Your task to perform on an android device: Search for Mexican restaurants on Maps Image 0: 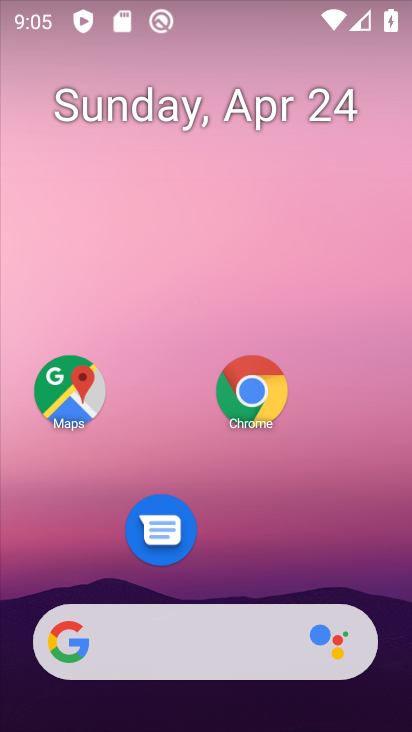
Step 0: click (82, 374)
Your task to perform on an android device: Search for Mexican restaurants on Maps Image 1: 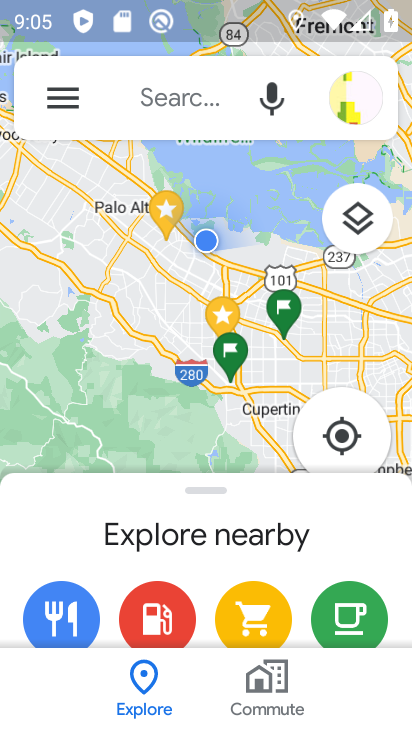
Step 1: click (206, 101)
Your task to perform on an android device: Search for Mexican restaurants on Maps Image 2: 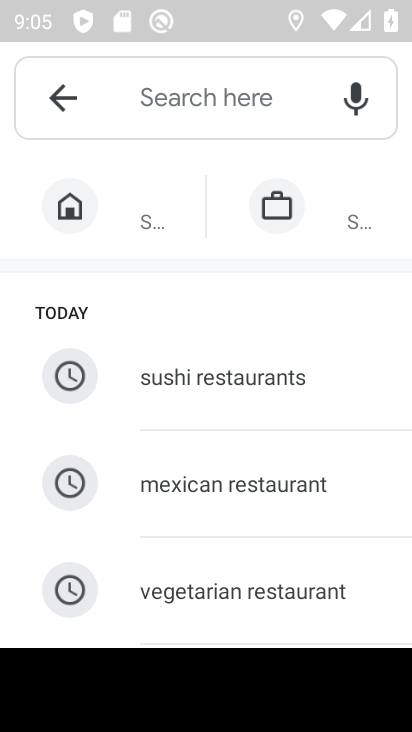
Step 2: click (237, 489)
Your task to perform on an android device: Search for Mexican restaurants on Maps Image 3: 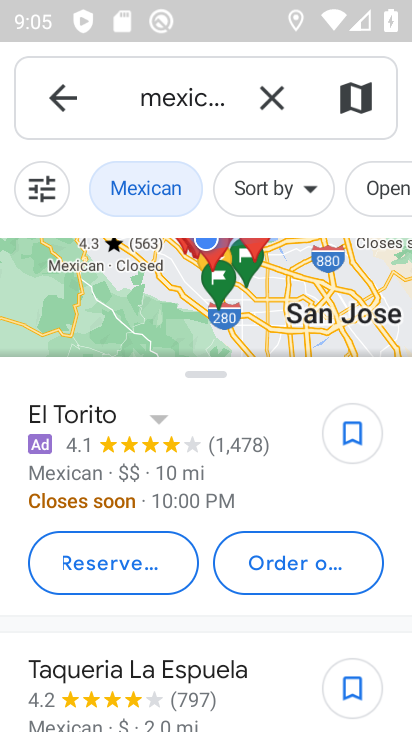
Step 3: task complete